Your task to perform on an android device: Show me popular games on the Play Store Image 0: 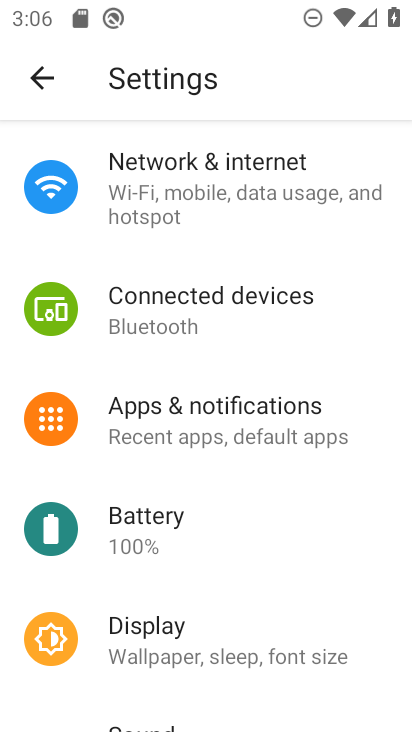
Step 0: press home button
Your task to perform on an android device: Show me popular games on the Play Store Image 1: 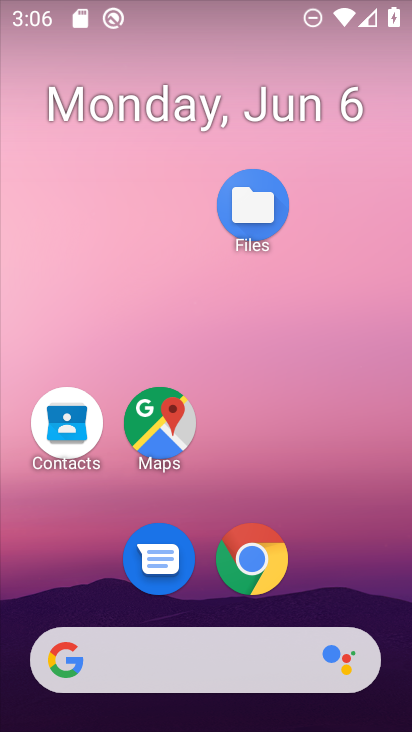
Step 1: drag from (227, 610) to (172, 118)
Your task to perform on an android device: Show me popular games on the Play Store Image 2: 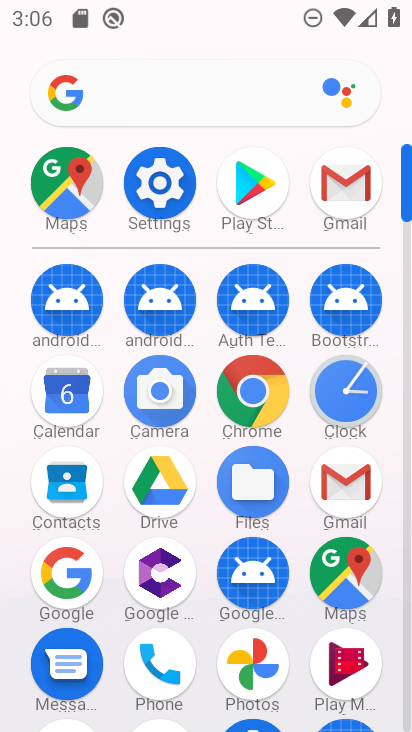
Step 2: drag from (211, 520) to (203, 212)
Your task to perform on an android device: Show me popular games on the Play Store Image 3: 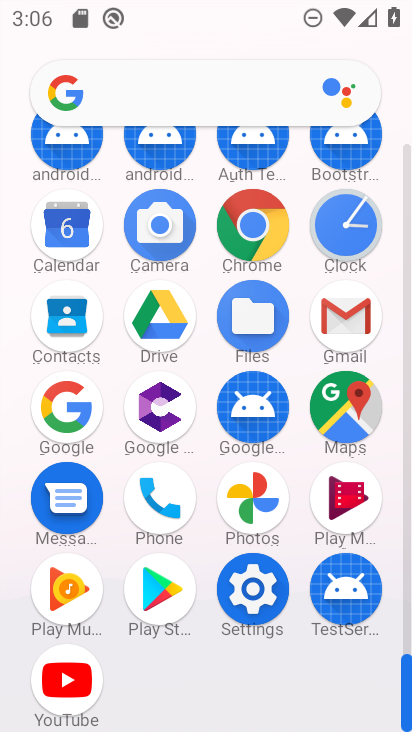
Step 3: click (178, 607)
Your task to perform on an android device: Show me popular games on the Play Store Image 4: 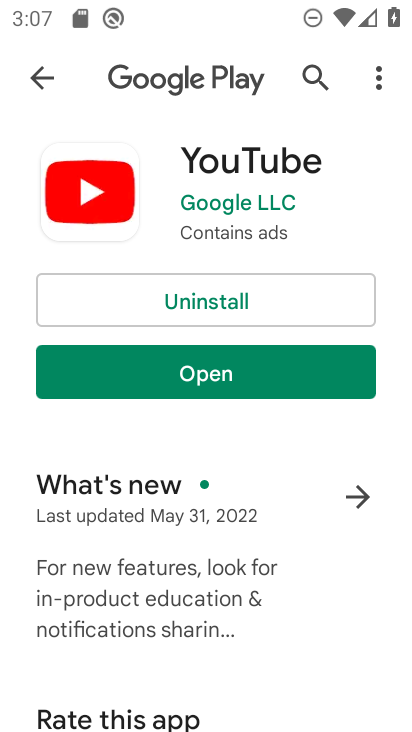
Step 4: click (28, 93)
Your task to perform on an android device: Show me popular games on the Play Store Image 5: 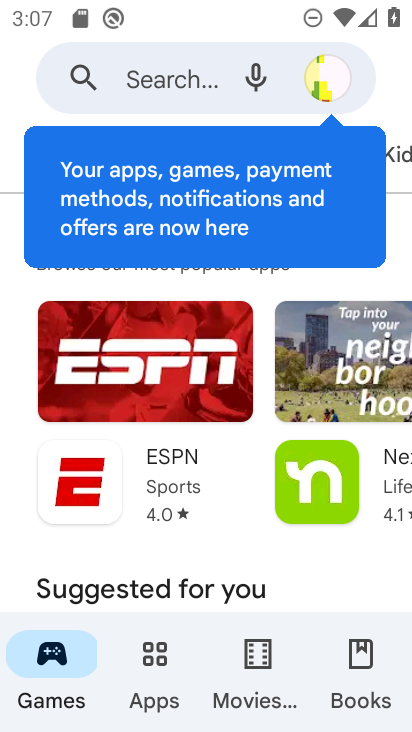
Step 5: task complete